Your task to perform on an android device: change the clock display to show seconds Image 0: 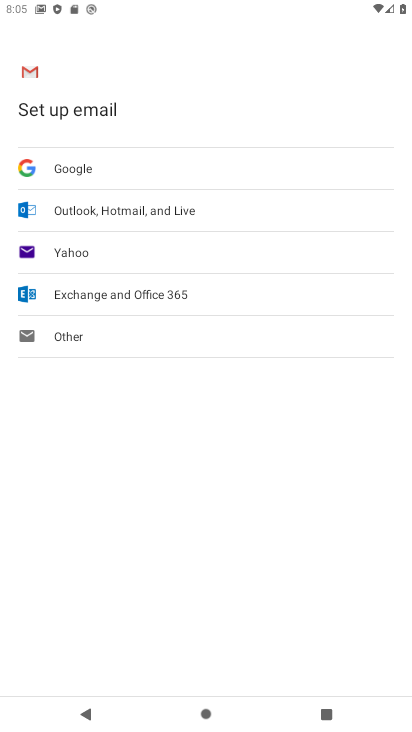
Step 0: press home button
Your task to perform on an android device: change the clock display to show seconds Image 1: 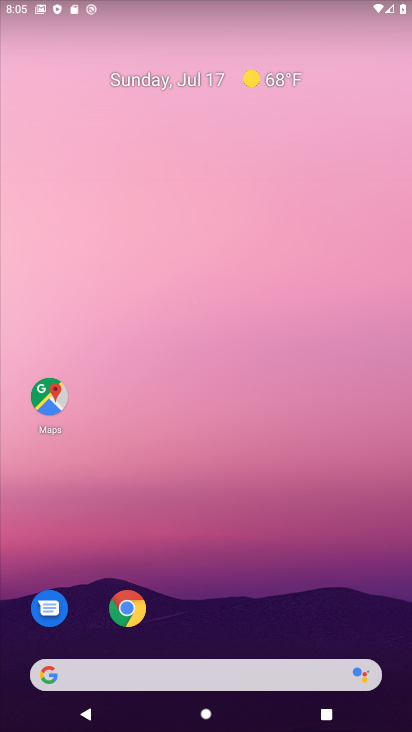
Step 1: drag from (257, 614) to (257, 96)
Your task to perform on an android device: change the clock display to show seconds Image 2: 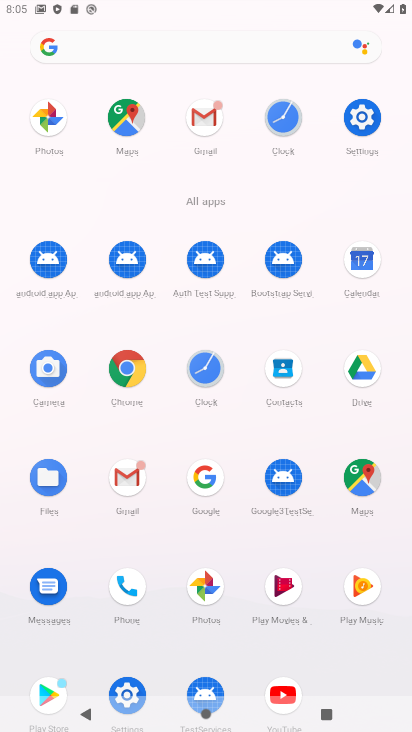
Step 2: click (277, 126)
Your task to perform on an android device: change the clock display to show seconds Image 3: 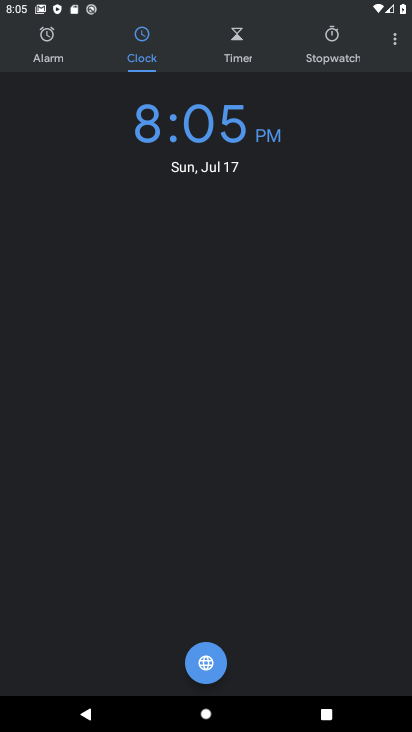
Step 3: click (388, 46)
Your task to perform on an android device: change the clock display to show seconds Image 4: 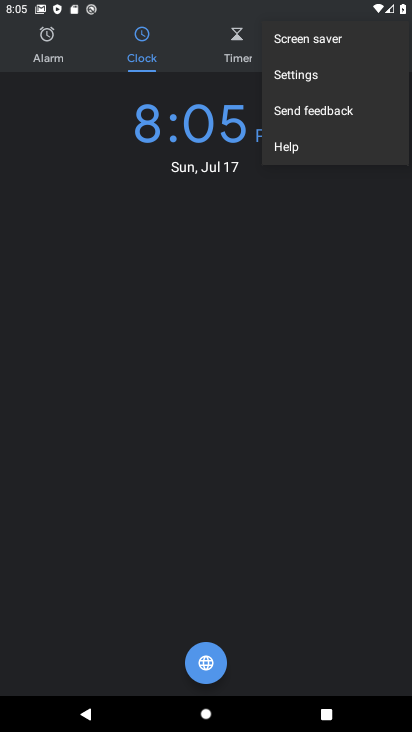
Step 4: click (315, 82)
Your task to perform on an android device: change the clock display to show seconds Image 5: 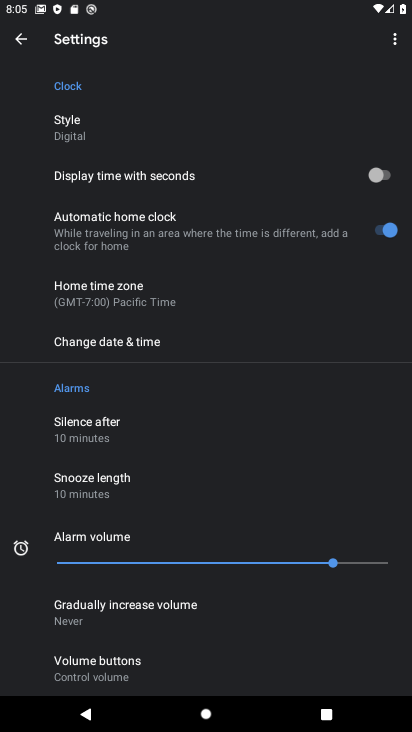
Step 5: click (392, 174)
Your task to perform on an android device: change the clock display to show seconds Image 6: 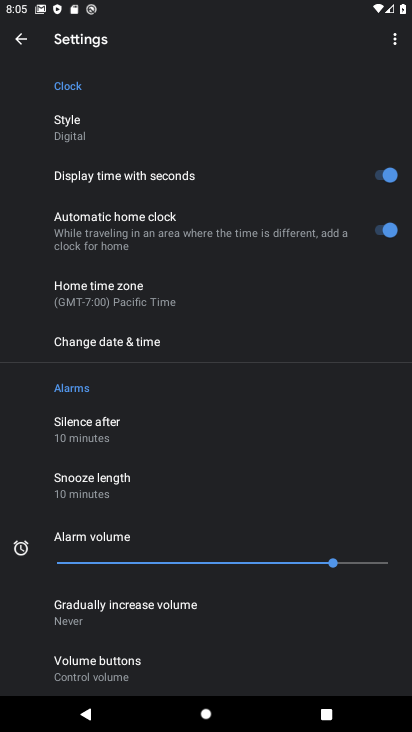
Step 6: task complete